Your task to perform on an android device: Open my contact list Image 0: 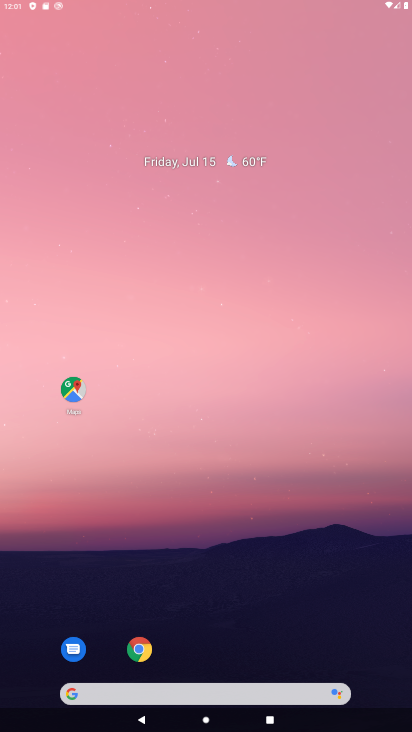
Step 0: drag from (254, 479) to (253, 217)
Your task to perform on an android device: Open my contact list Image 1: 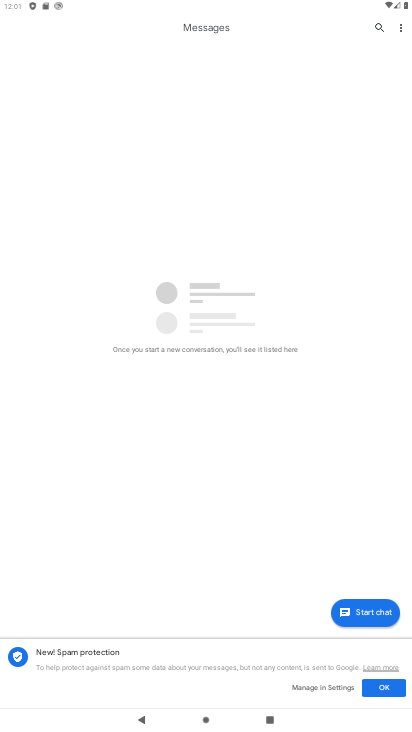
Step 1: press home button
Your task to perform on an android device: Open my contact list Image 2: 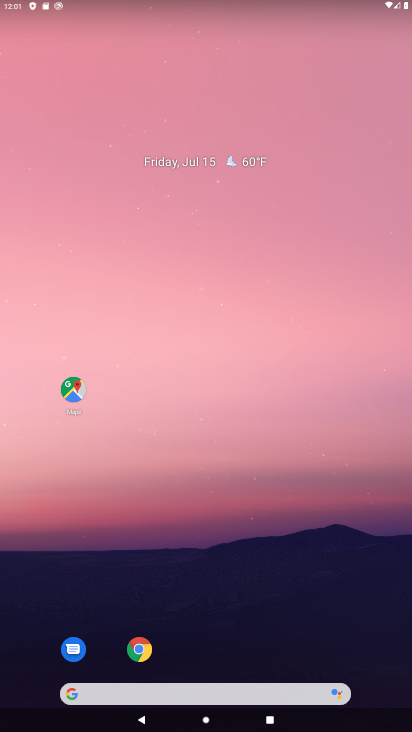
Step 2: drag from (219, 676) to (246, 225)
Your task to perform on an android device: Open my contact list Image 3: 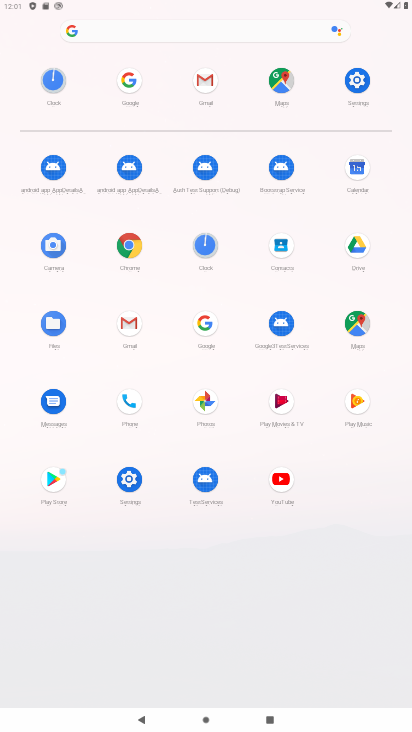
Step 3: click (114, 394)
Your task to perform on an android device: Open my contact list Image 4: 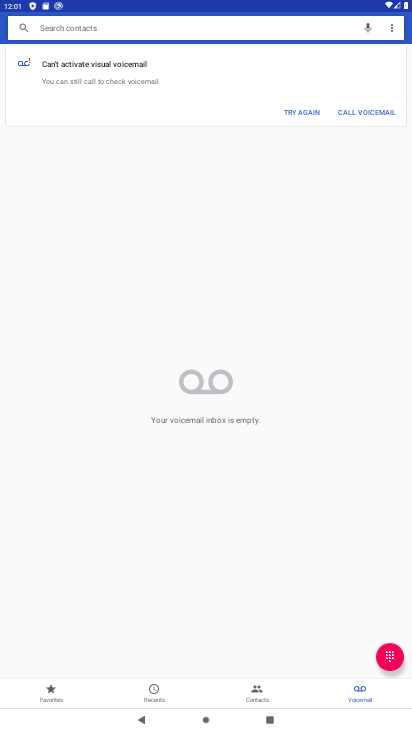
Step 4: click (253, 691)
Your task to perform on an android device: Open my contact list Image 5: 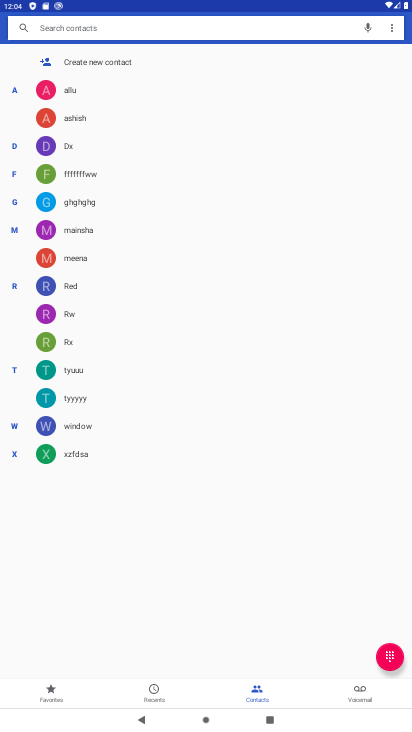
Step 5: task complete